Your task to perform on an android device: uninstall "Google Find My Device" Image 0: 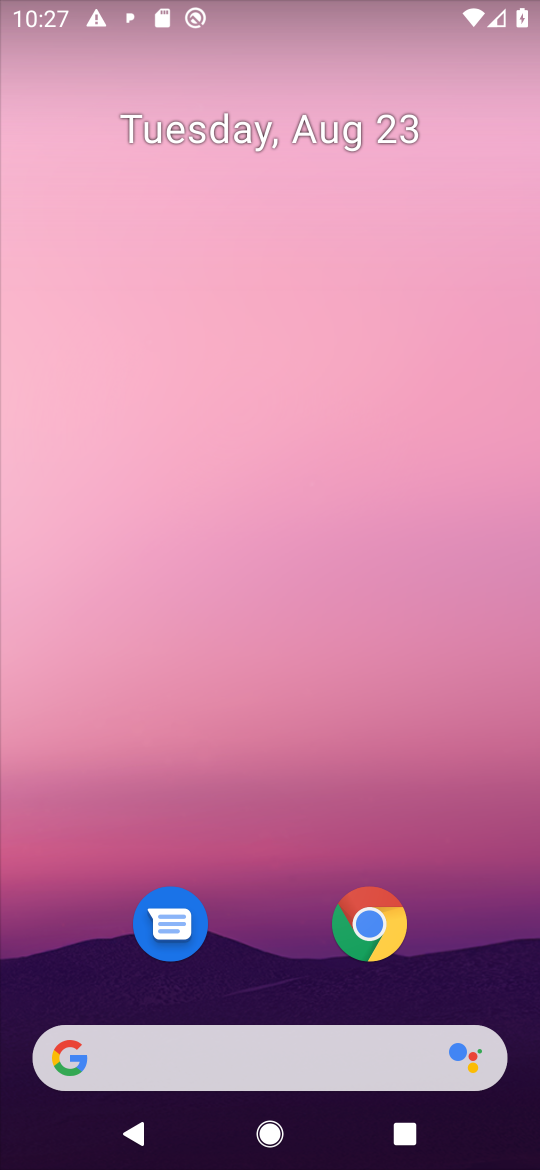
Step 0: press home button
Your task to perform on an android device: uninstall "Google Find My Device" Image 1: 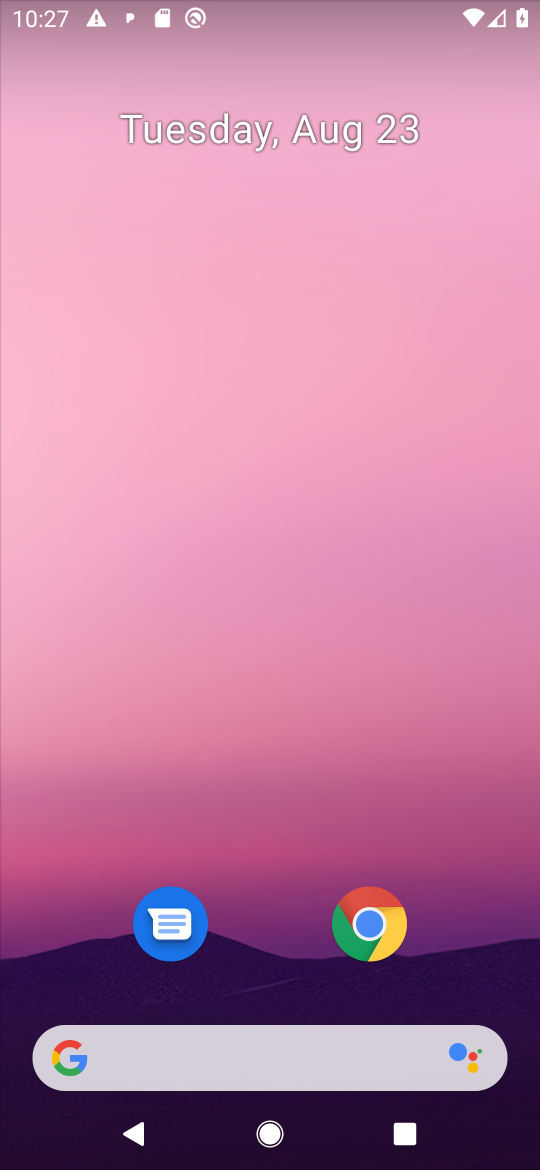
Step 1: drag from (477, 948) to (502, 146)
Your task to perform on an android device: uninstall "Google Find My Device" Image 2: 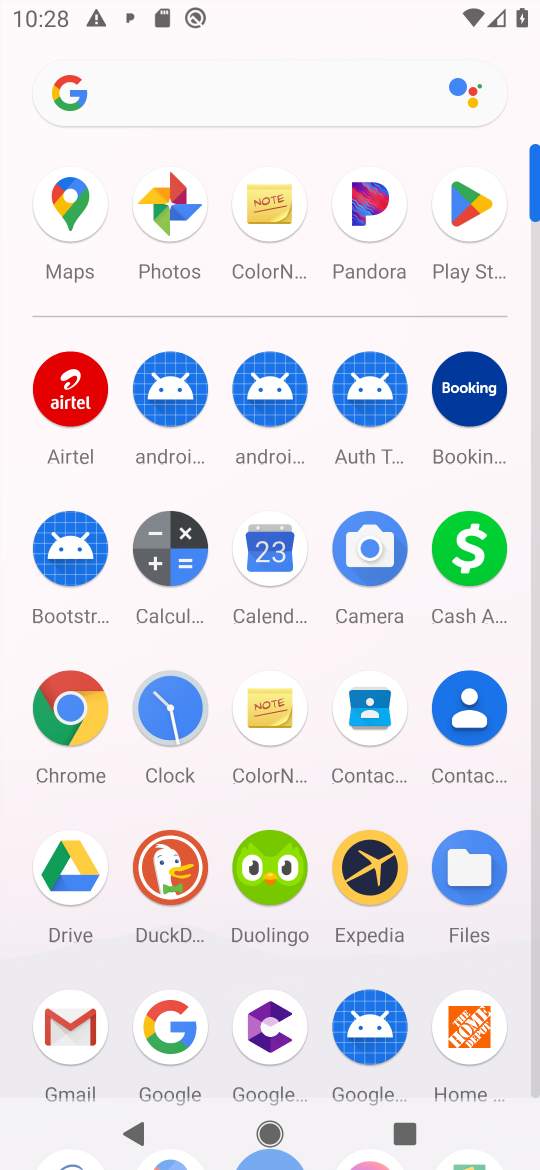
Step 2: click (463, 198)
Your task to perform on an android device: uninstall "Google Find My Device" Image 3: 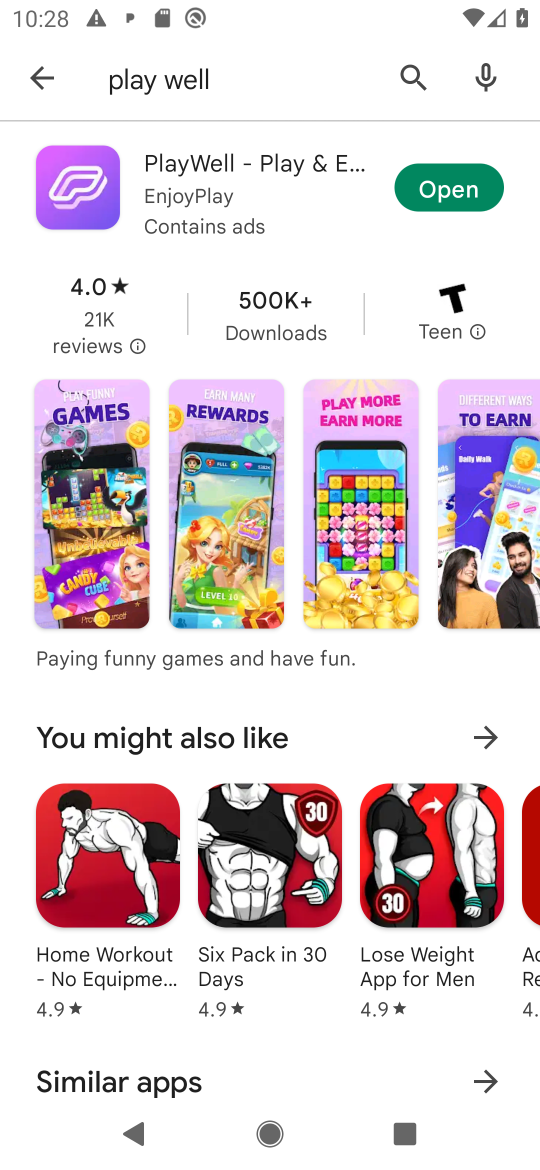
Step 3: press back button
Your task to perform on an android device: uninstall "Google Find My Device" Image 4: 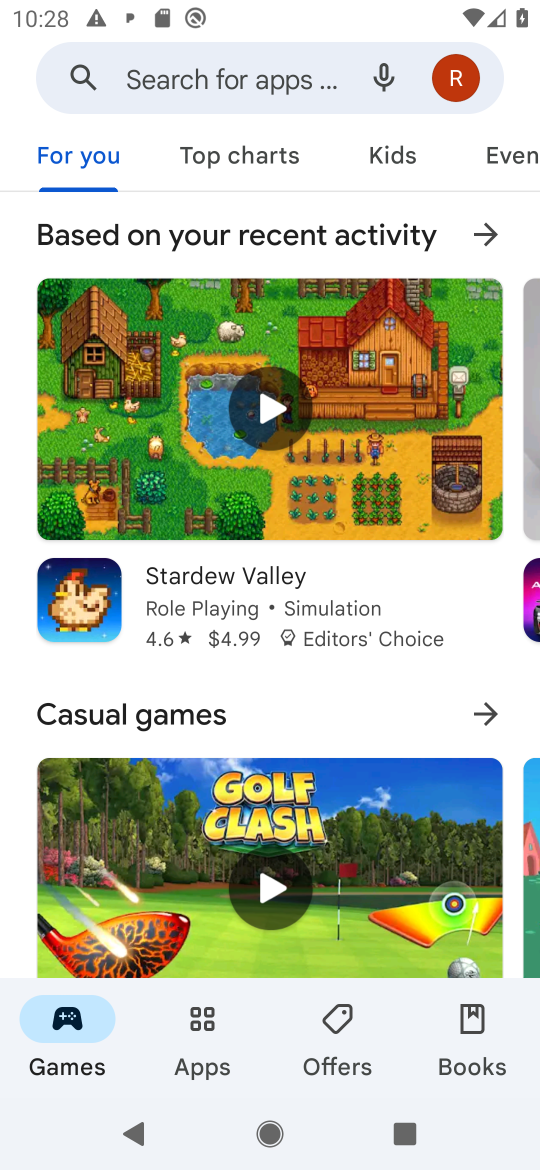
Step 4: click (255, 81)
Your task to perform on an android device: uninstall "Google Find My Device" Image 5: 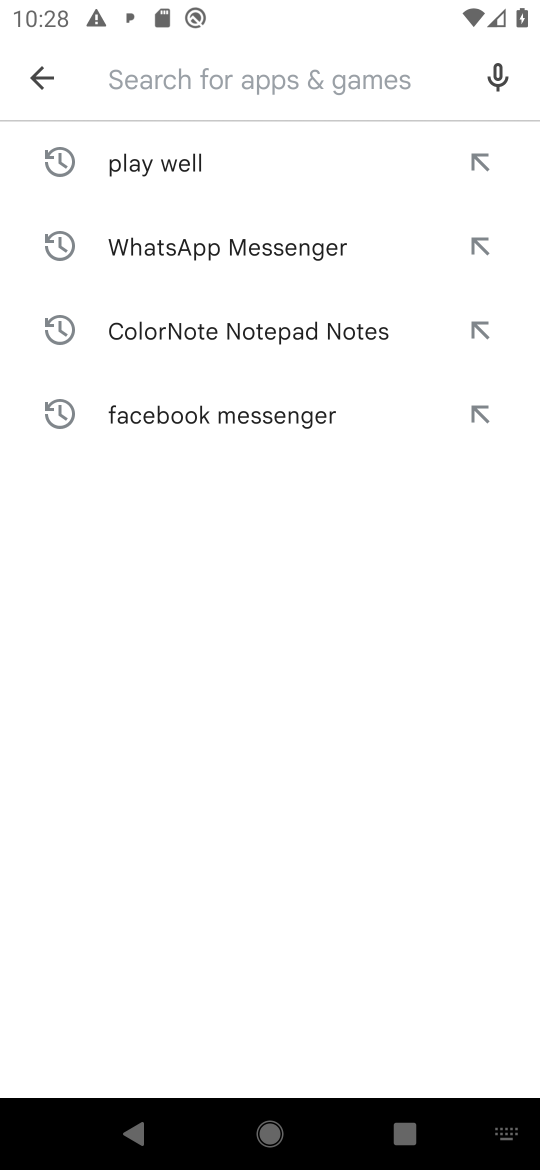
Step 5: type "Google Find My Device"
Your task to perform on an android device: uninstall "Google Find My Device" Image 6: 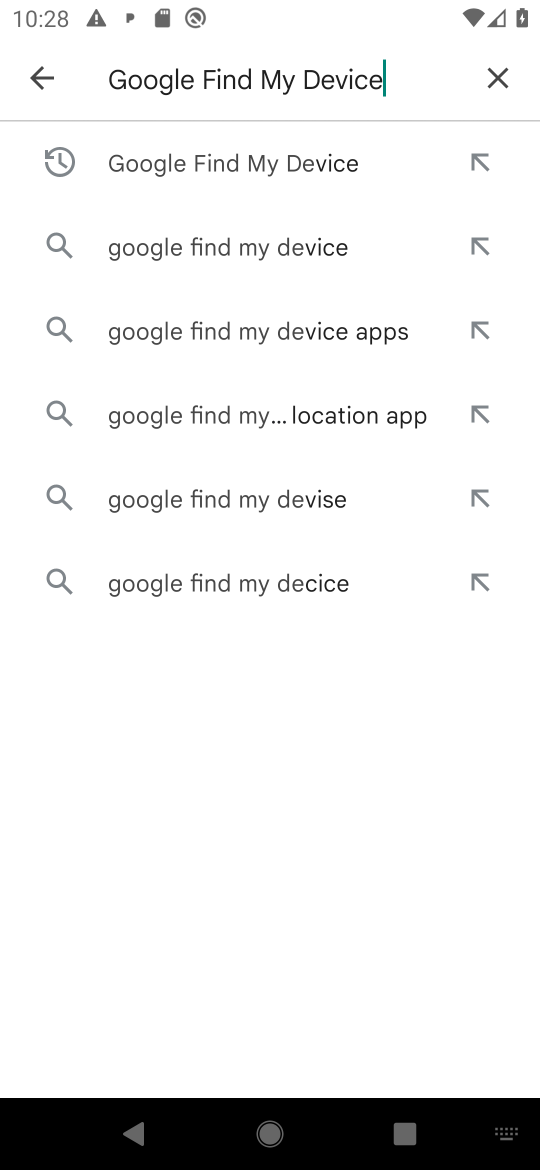
Step 6: press enter
Your task to perform on an android device: uninstall "Google Find My Device" Image 7: 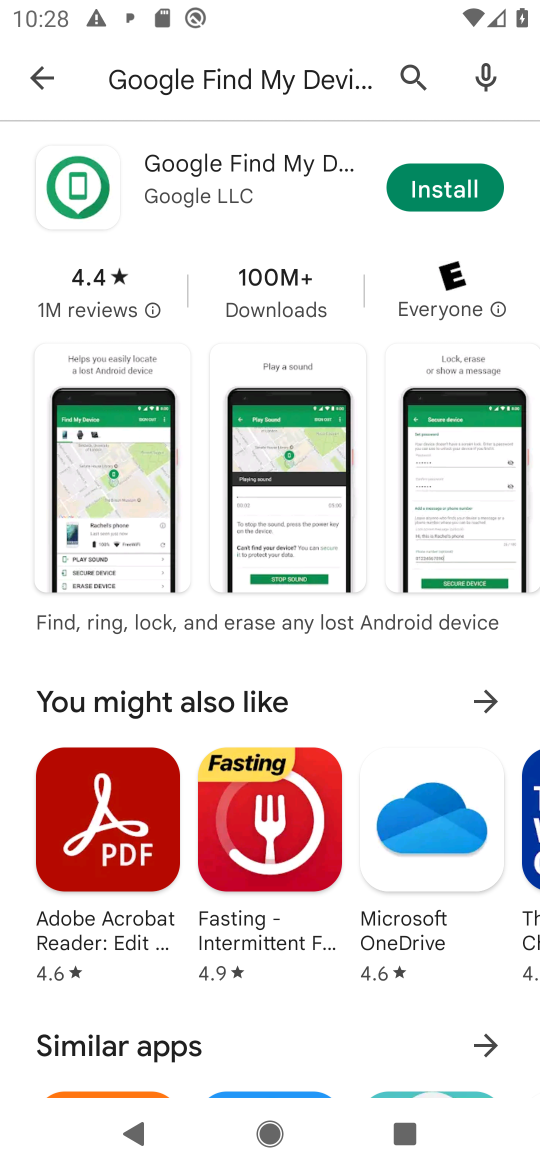
Step 7: task complete